Your task to perform on an android device: Go to location settings Image 0: 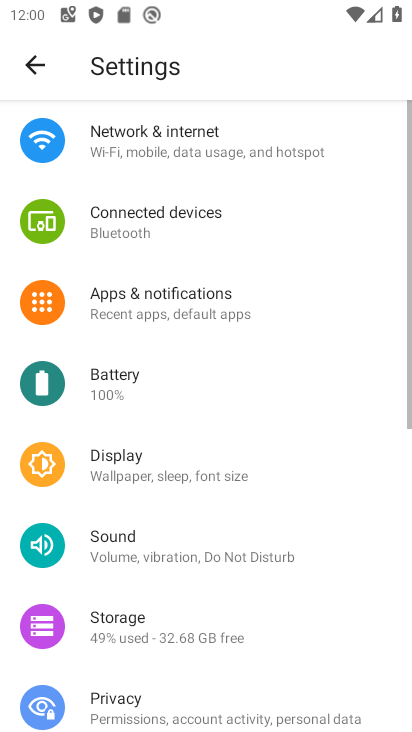
Step 0: drag from (178, 665) to (178, 87)
Your task to perform on an android device: Go to location settings Image 1: 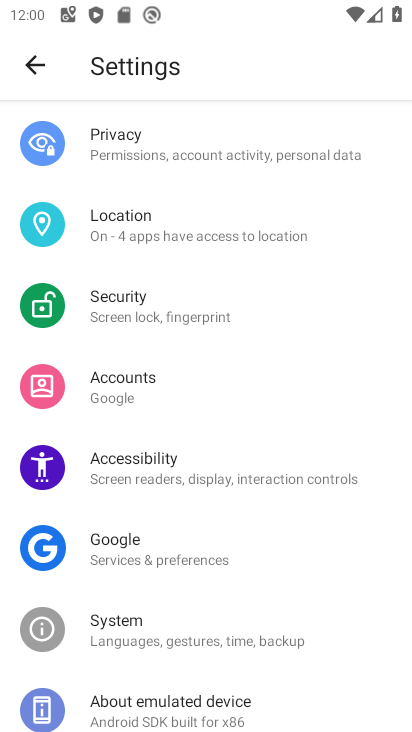
Step 1: click (165, 217)
Your task to perform on an android device: Go to location settings Image 2: 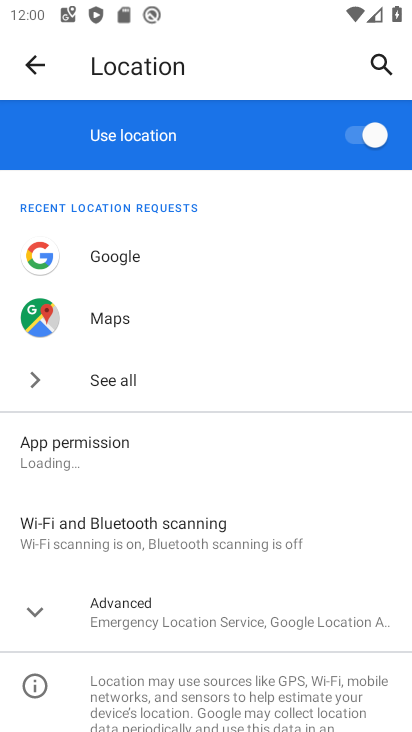
Step 2: click (36, 604)
Your task to perform on an android device: Go to location settings Image 3: 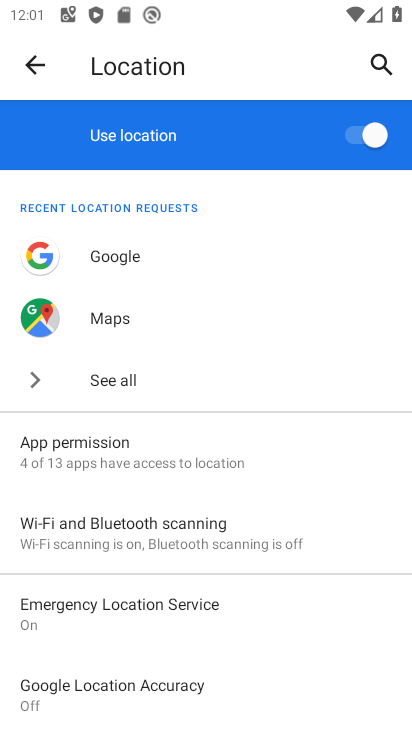
Step 3: task complete